Your task to perform on an android device: toggle airplane mode Image 0: 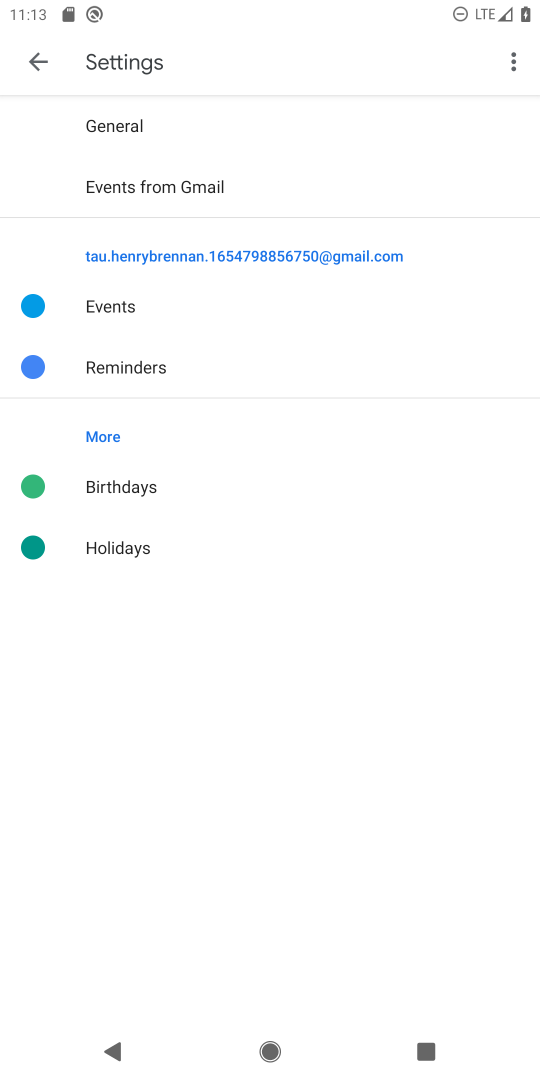
Step 0: press home button
Your task to perform on an android device: toggle airplane mode Image 1: 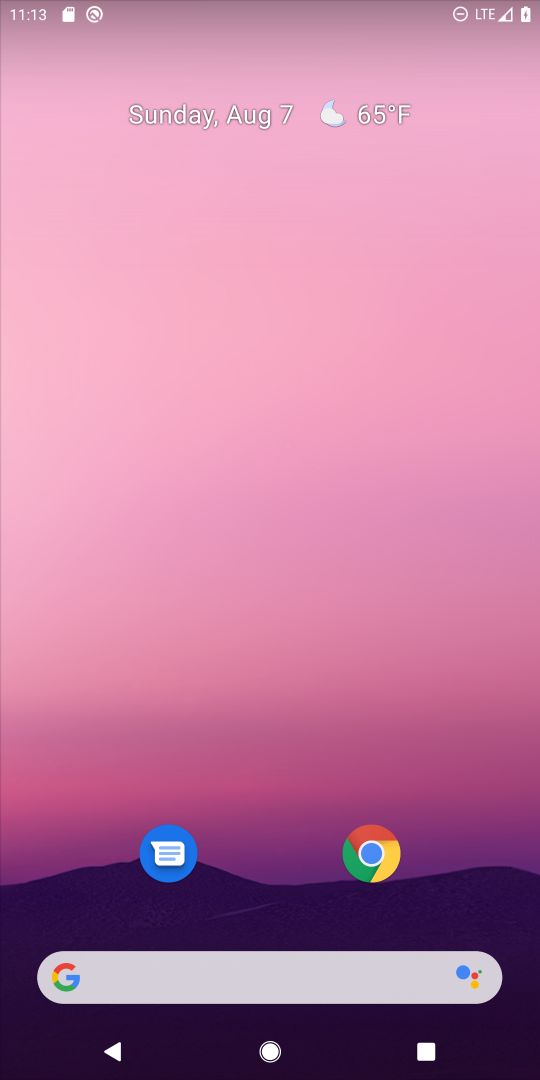
Step 1: drag from (245, 899) to (313, 78)
Your task to perform on an android device: toggle airplane mode Image 2: 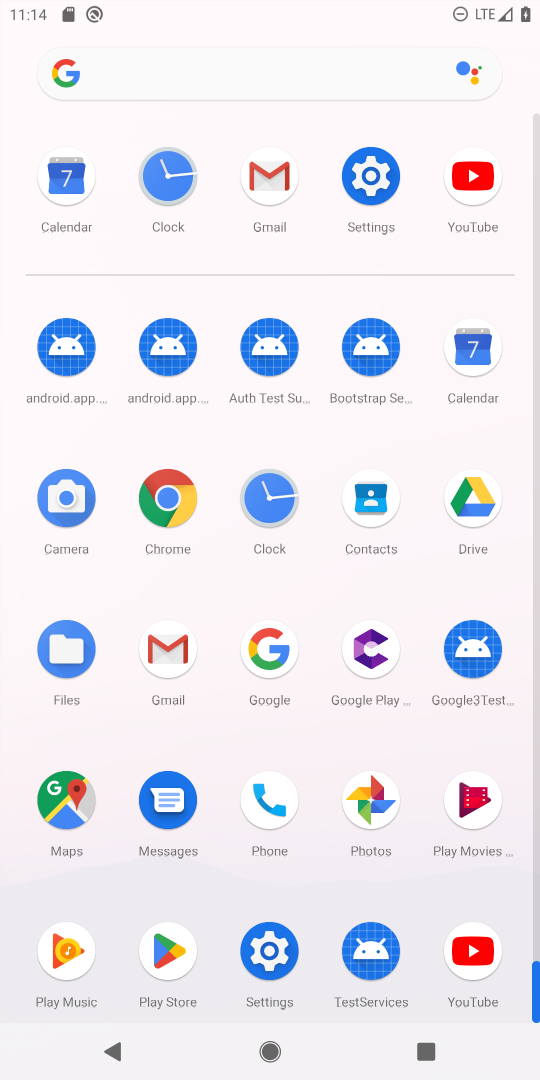
Step 2: click (361, 190)
Your task to perform on an android device: toggle airplane mode Image 3: 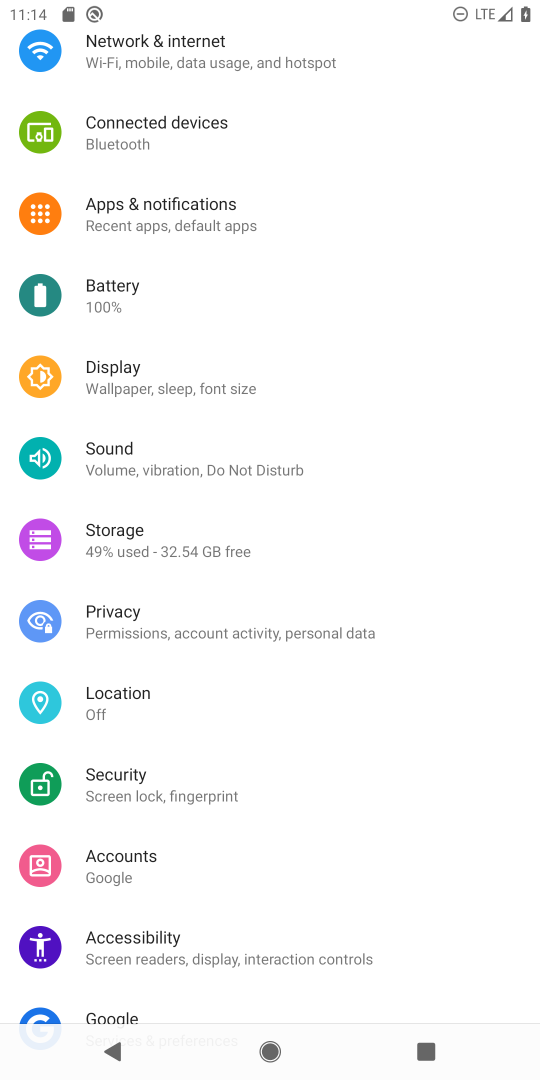
Step 3: click (248, 43)
Your task to perform on an android device: toggle airplane mode Image 4: 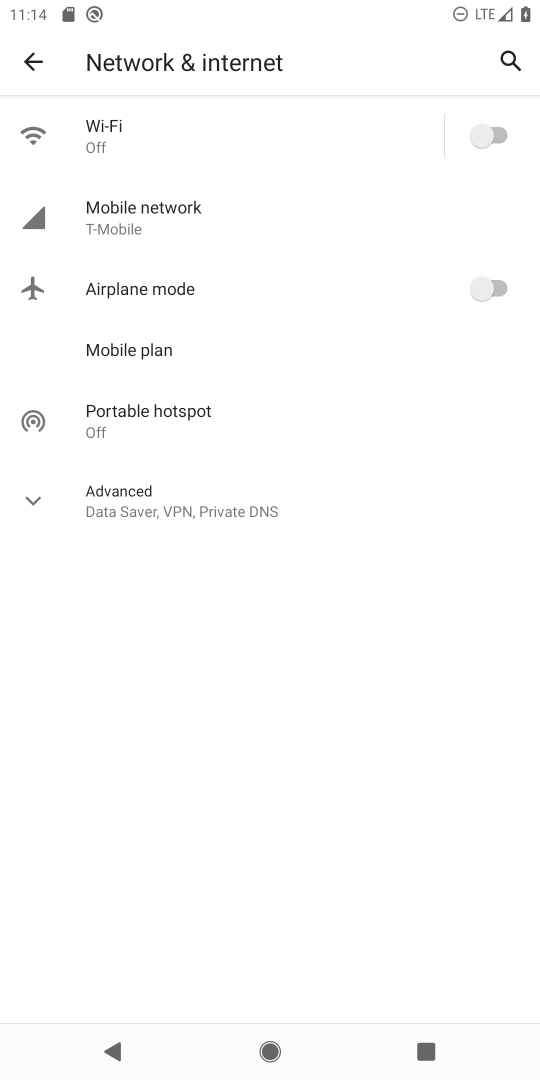
Step 4: click (495, 284)
Your task to perform on an android device: toggle airplane mode Image 5: 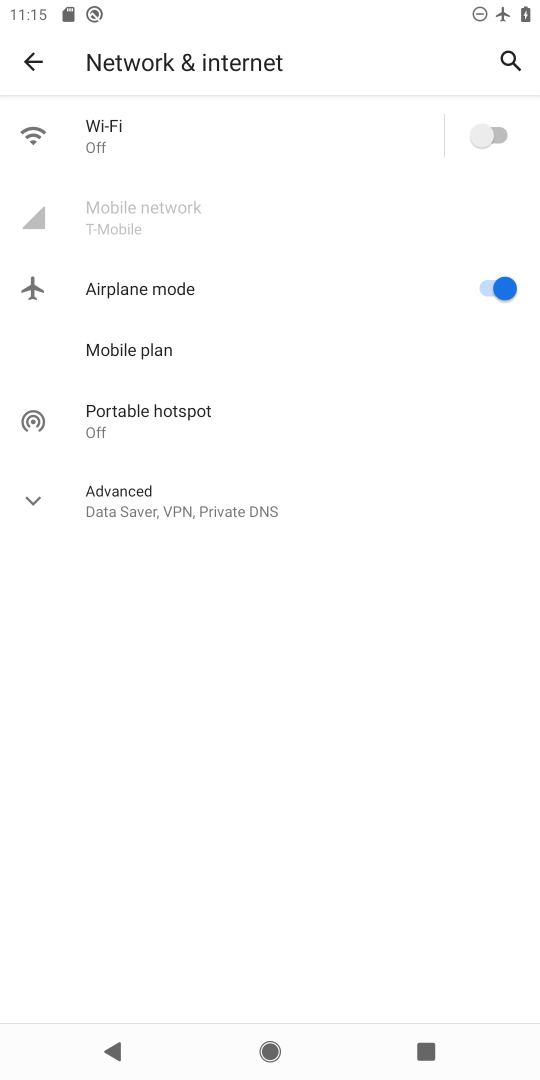
Step 5: task complete